Your task to perform on an android device: What's the weather going to be this weekend? Image 0: 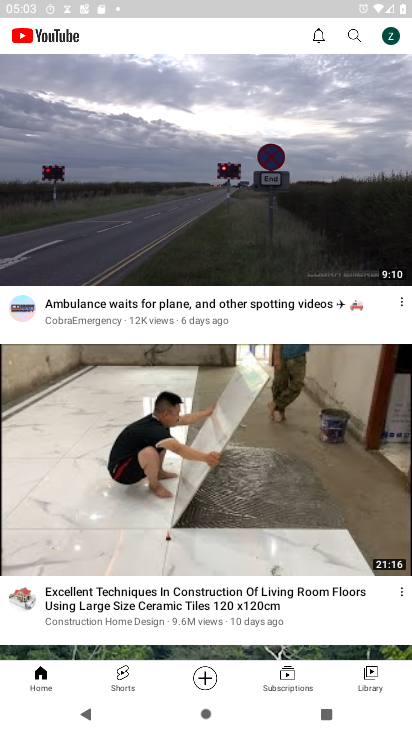
Step 0: press home button
Your task to perform on an android device: What's the weather going to be this weekend? Image 1: 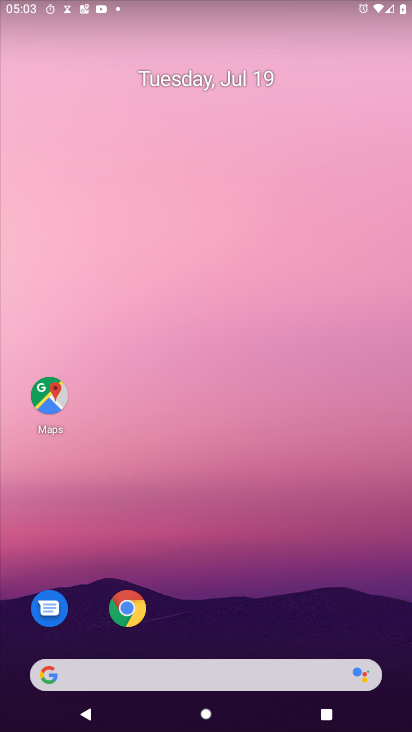
Step 1: drag from (180, 681) to (189, 168)
Your task to perform on an android device: What's the weather going to be this weekend? Image 2: 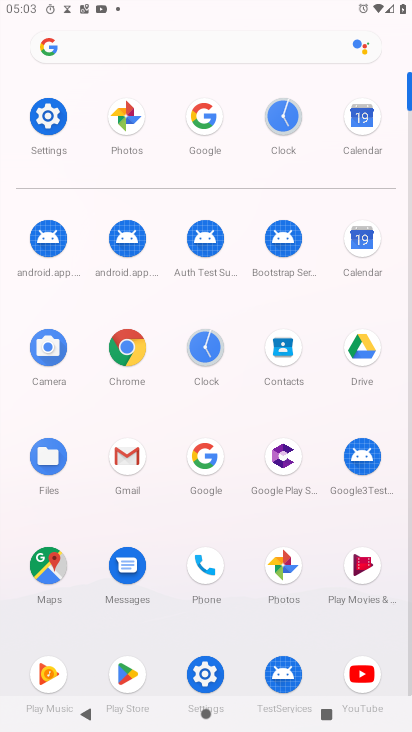
Step 2: click (202, 116)
Your task to perform on an android device: What's the weather going to be this weekend? Image 3: 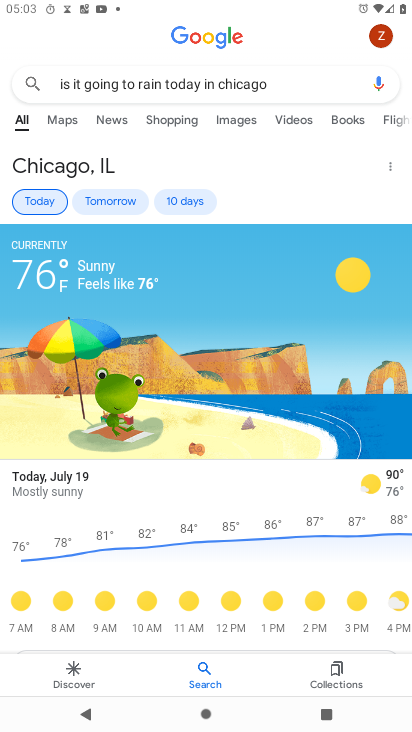
Step 3: click (278, 76)
Your task to perform on an android device: What's the weather going to be this weekend? Image 4: 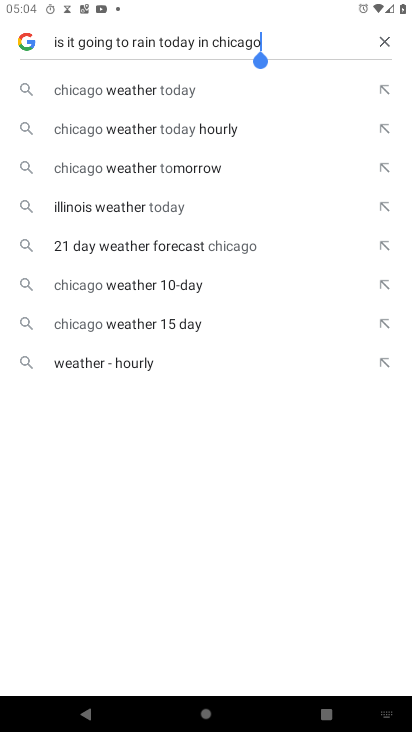
Step 4: click (383, 39)
Your task to perform on an android device: What's the weather going to be this weekend? Image 5: 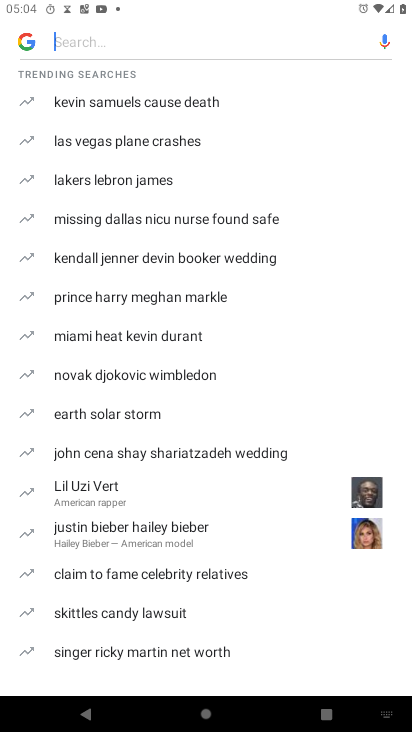
Step 5: type "What's the weather going to be this weekend?"
Your task to perform on an android device: What's the weather going to be this weekend? Image 6: 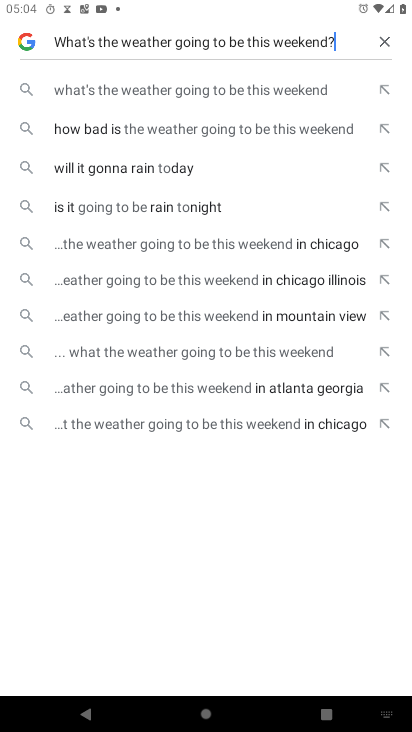
Step 6: click (244, 93)
Your task to perform on an android device: What's the weather going to be this weekend? Image 7: 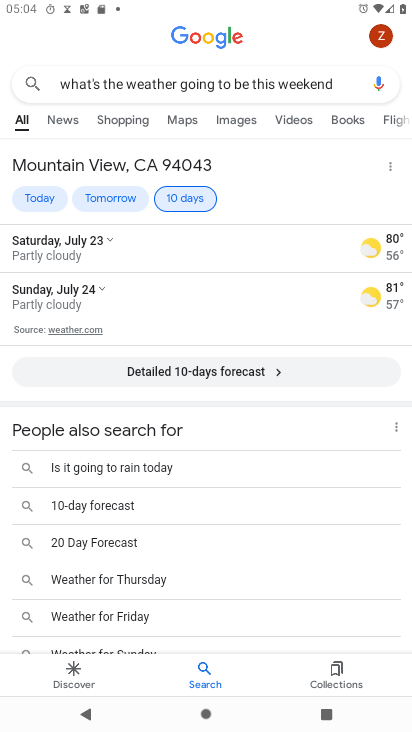
Step 7: task complete